Your task to perform on an android device: check battery use Image 0: 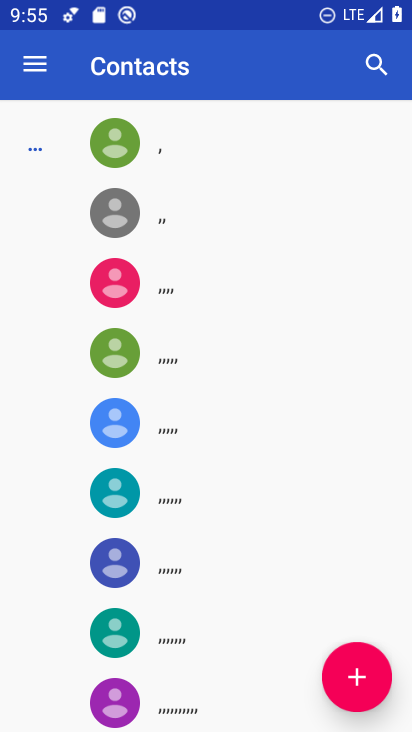
Step 0: press home button
Your task to perform on an android device: check battery use Image 1: 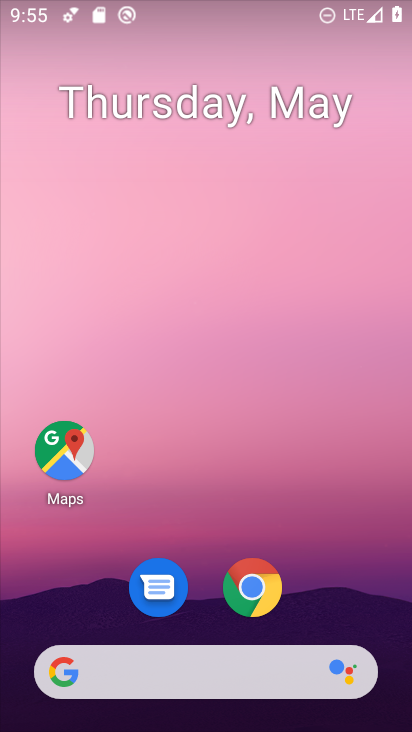
Step 1: drag from (344, 632) to (321, 7)
Your task to perform on an android device: check battery use Image 2: 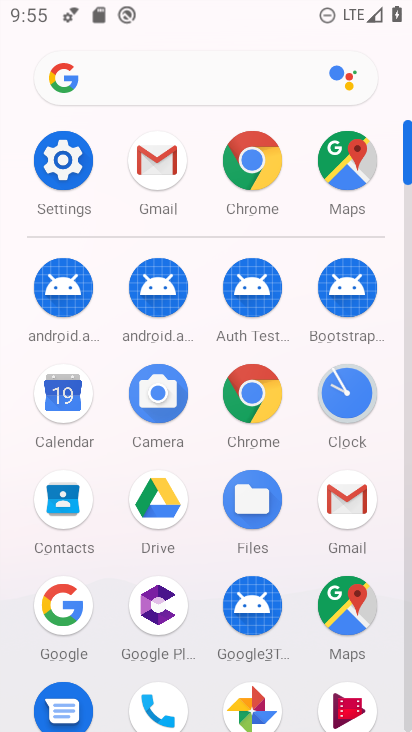
Step 2: click (58, 163)
Your task to perform on an android device: check battery use Image 3: 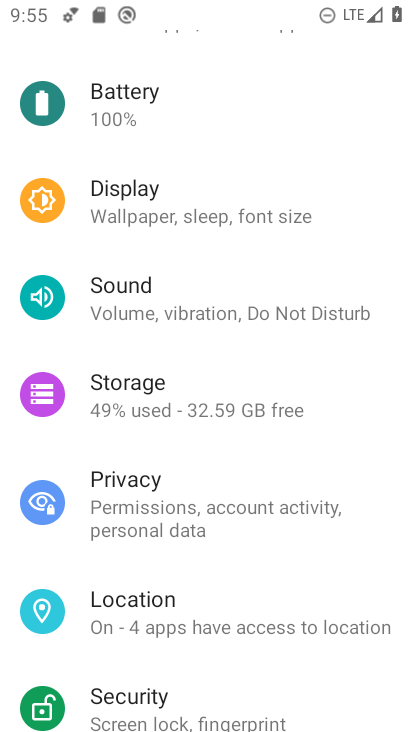
Step 3: click (126, 118)
Your task to perform on an android device: check battery use Image 4: 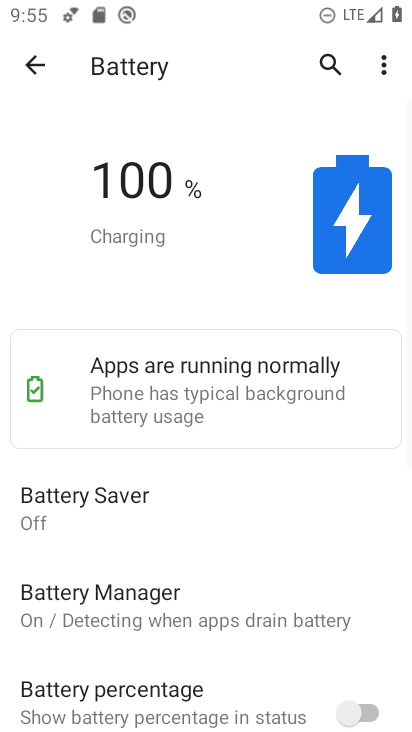
Step 4: click (387, 59)
Your task to perform on an android device: check battery use Image 5: 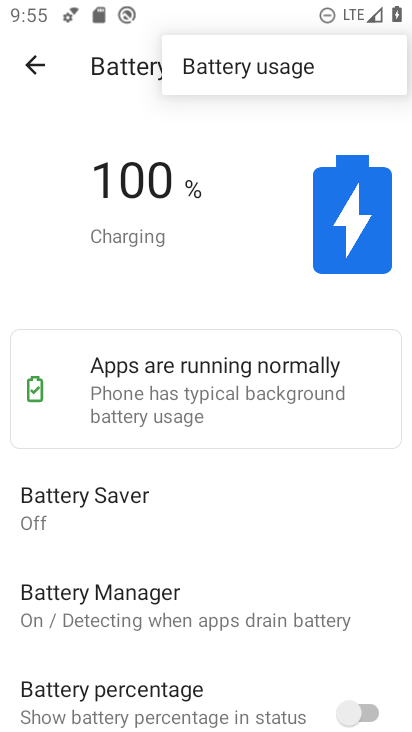
Step 5: click (289, 76)
Your task to perform on an android device: check battery use Image 6: 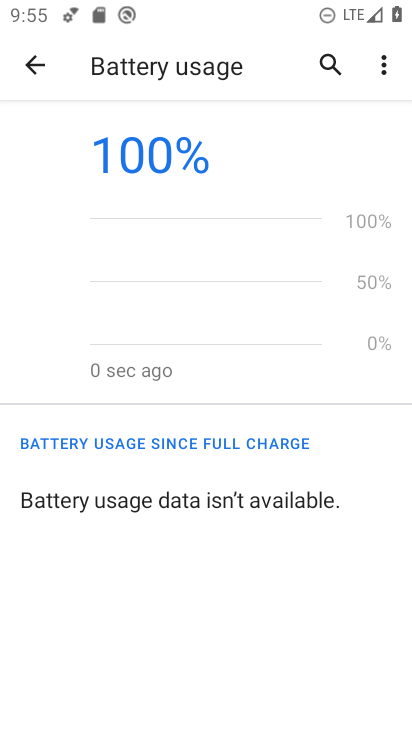
Step 6: task complete